Your task to perform on an android device: Open Chrome and go to the settings page Image 0: 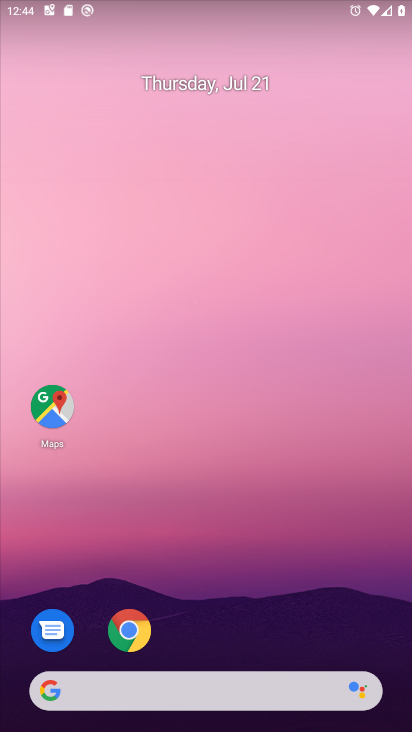
Step 0: drag from (190, 652) to (273, 5)
Your task to perform on an android device: Open Chrome and go to the settings page Image 1: 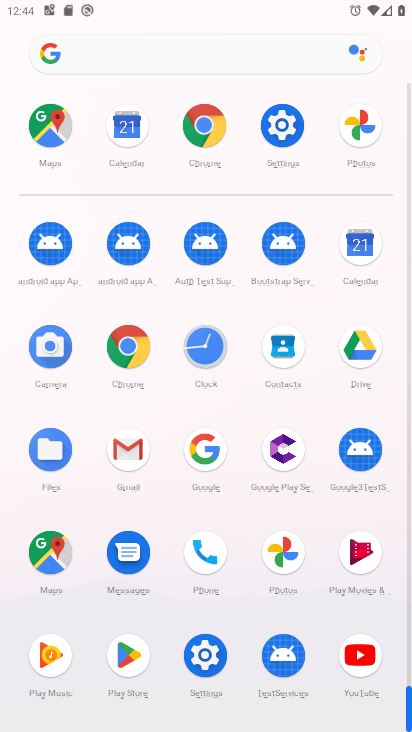
Step 1: click (119, 353)
Your task to perform on an android device: Open Chrome and go to the settings page Image 2: 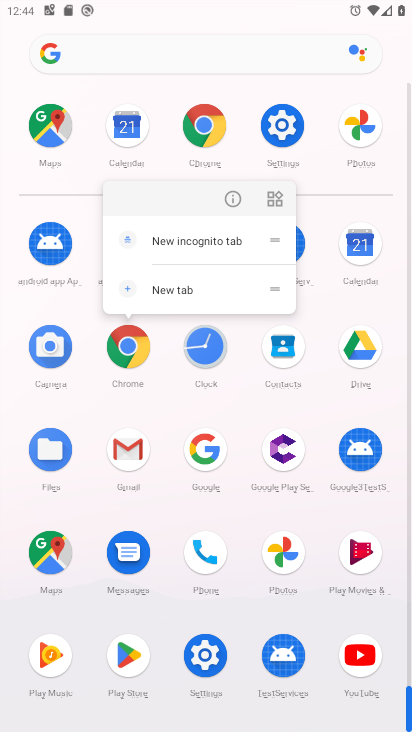
Step 2: click (238, 183)
Your task to perform on an android device: Open Chrome and go to the settings page Image 3: 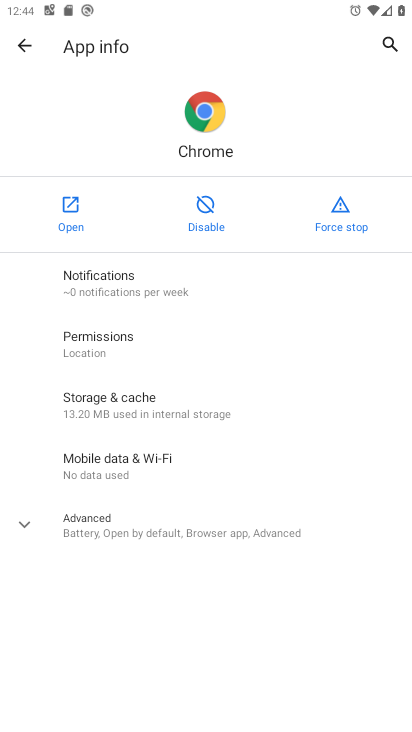
Step 3: click (66, 218)
Your task to perform on an android device: Open Chrome and go to the settings page Image 4: 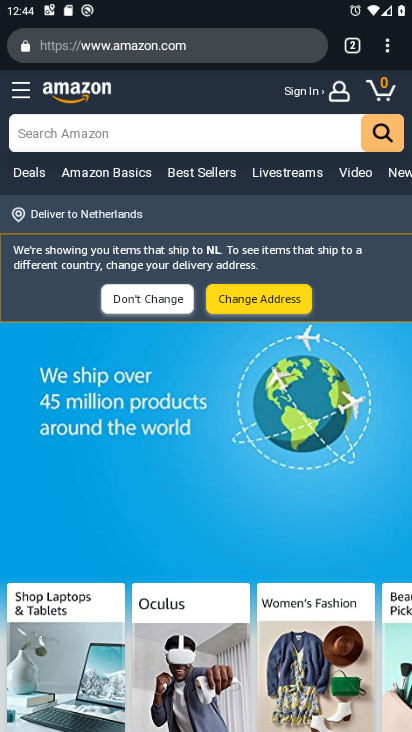
Step 4: drag from (390, 44) to (273, 544)
Your task to perform on an android device: Open Chrome and go to the settings page Image 5: 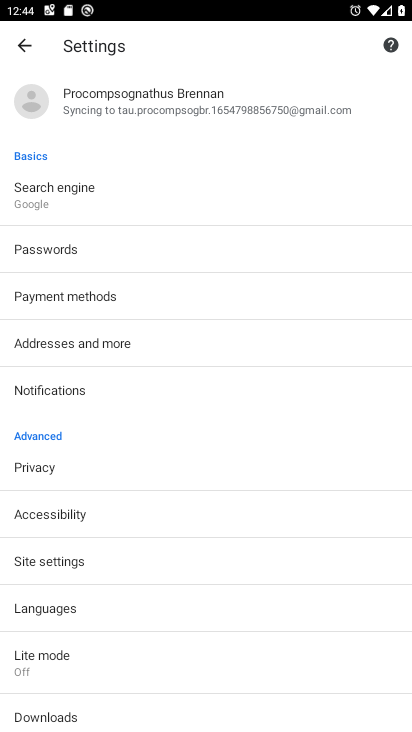
Step 5: click (221, 305)
Your task to perform on an android device: Open Chrome and go to the settings page Image 6: 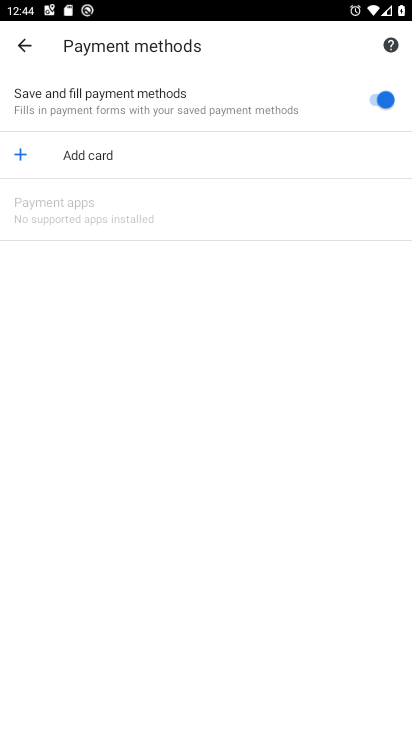
Step 6: drag from (197, 538) to (278, 229)
Your task to perform on an android device: Open Chrome and go to the settings page Image 7: 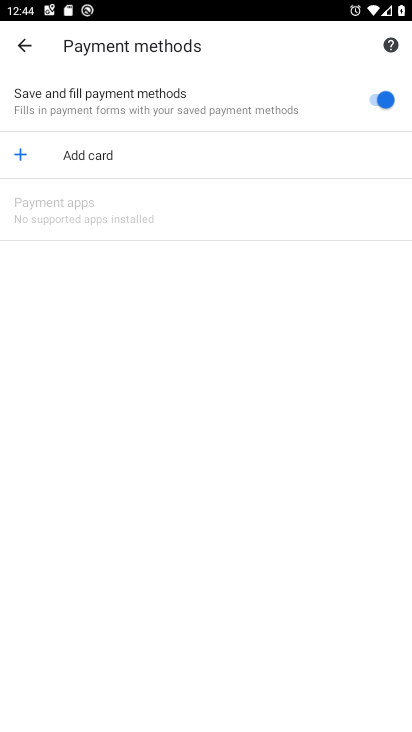
Step 7: drag from (285, 605) to (365, 266)
Your task to perform on an android device: Open Chrome and go to the settings page Image 8: 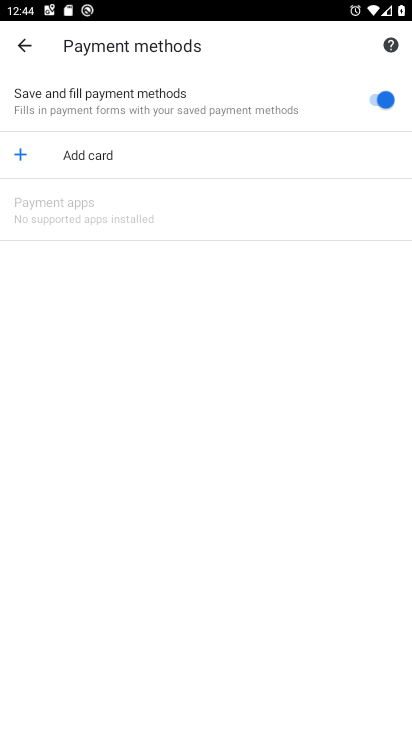
Step 8: click (26, 52)
Your task to perform on an android device: Open Chrome and go to the settings page Image 9: 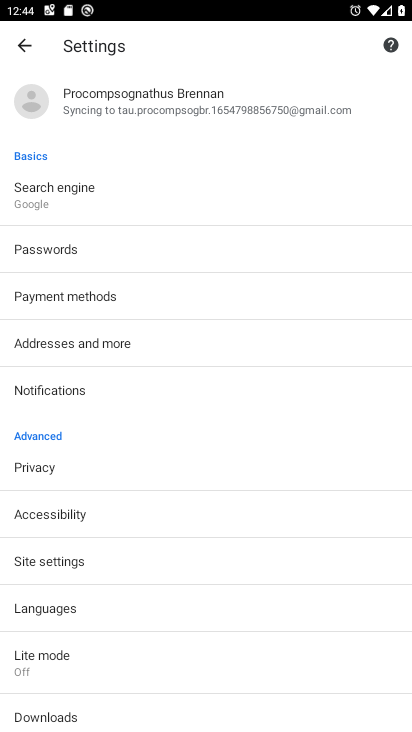
Step 9: task complete